Your task to perform on an android device: open app "DoorDash - Food Delivery" Image 0: 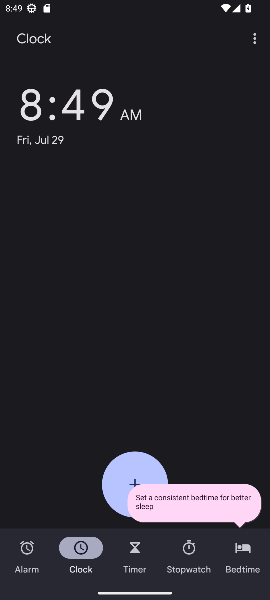
Step 0: press home button
Your task to perform on an android device: open app "DoorDash - Food Delivery" Image 1: 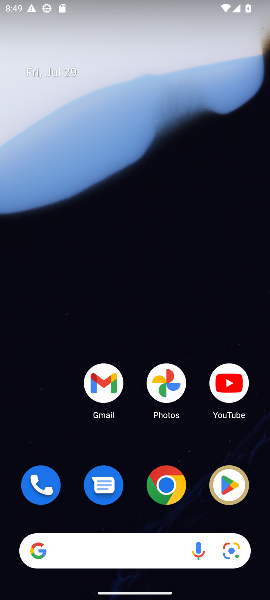
Step 1: drag from (120, 555) to (108, 118)
Your task to perform on an android device: open app "DoorDash - Food Delivery" Image 2: 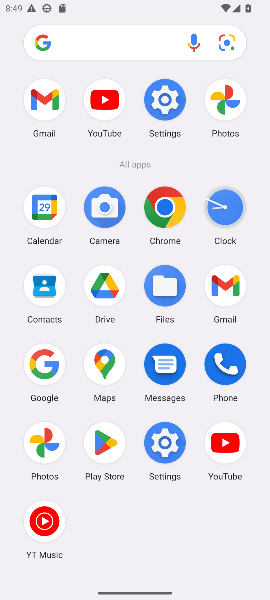
Step 2: click (109, 444)
Your task to perform on an android device: open app "DoorDash - Food Delivery" Image 3: 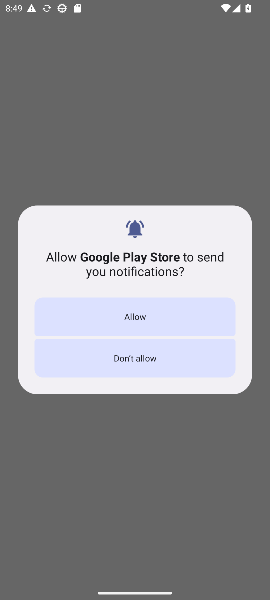
Step 3: click (124, 318)
Your task to perform on an android device: open app "DoorDash - Food Delivery" Image 4: 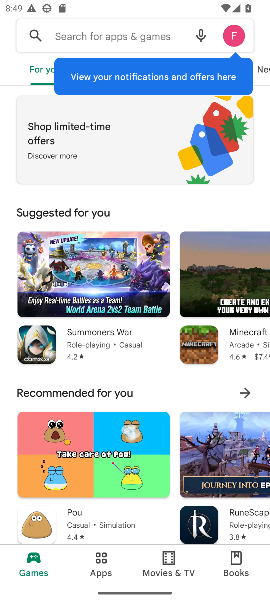
Step 4: click (96, 38)
Your task to perform on an android device: open app "DoorDash - Food Delivery" Image 5: 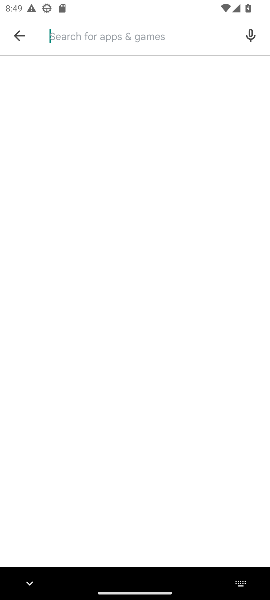
Step 5: type "DoorDash - Food Delivery"
Your task to perform on an android device: open app "DoorDash - Food Delivery" Image 6: 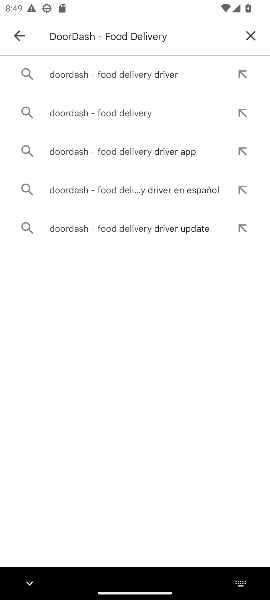
Step 6: click (121, 108)
Your task to perform on an android device: open app "DoorDash - Food Delivery" Image 7: 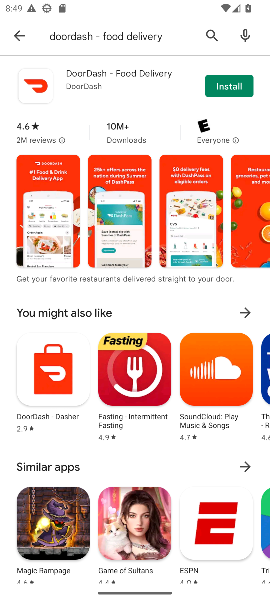
Step 7: task complete